Your task to perform on an android device: Is it going to rain this weekend? Image 0: 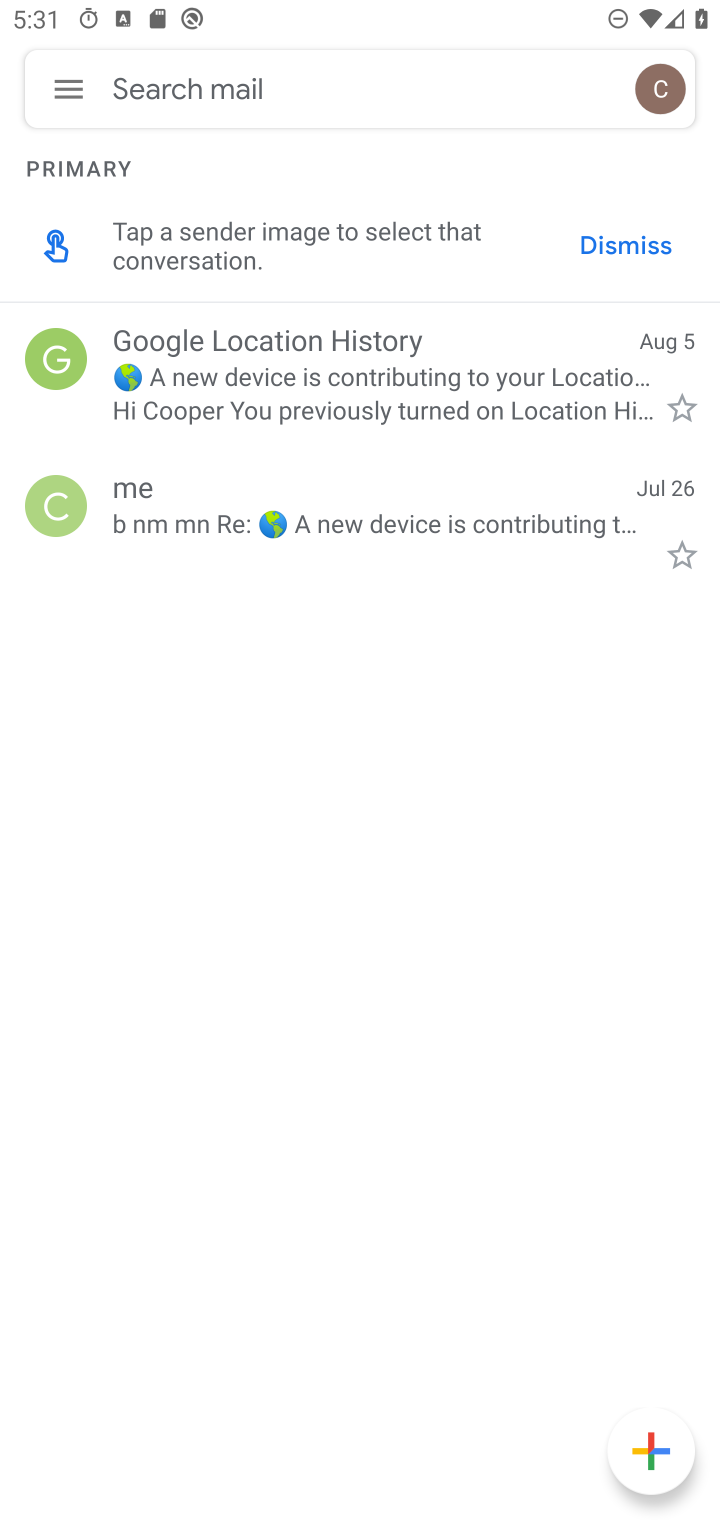
Step 0: press home button
Your task to perform on an android device: Is it going to rain this weekend? Image 1: 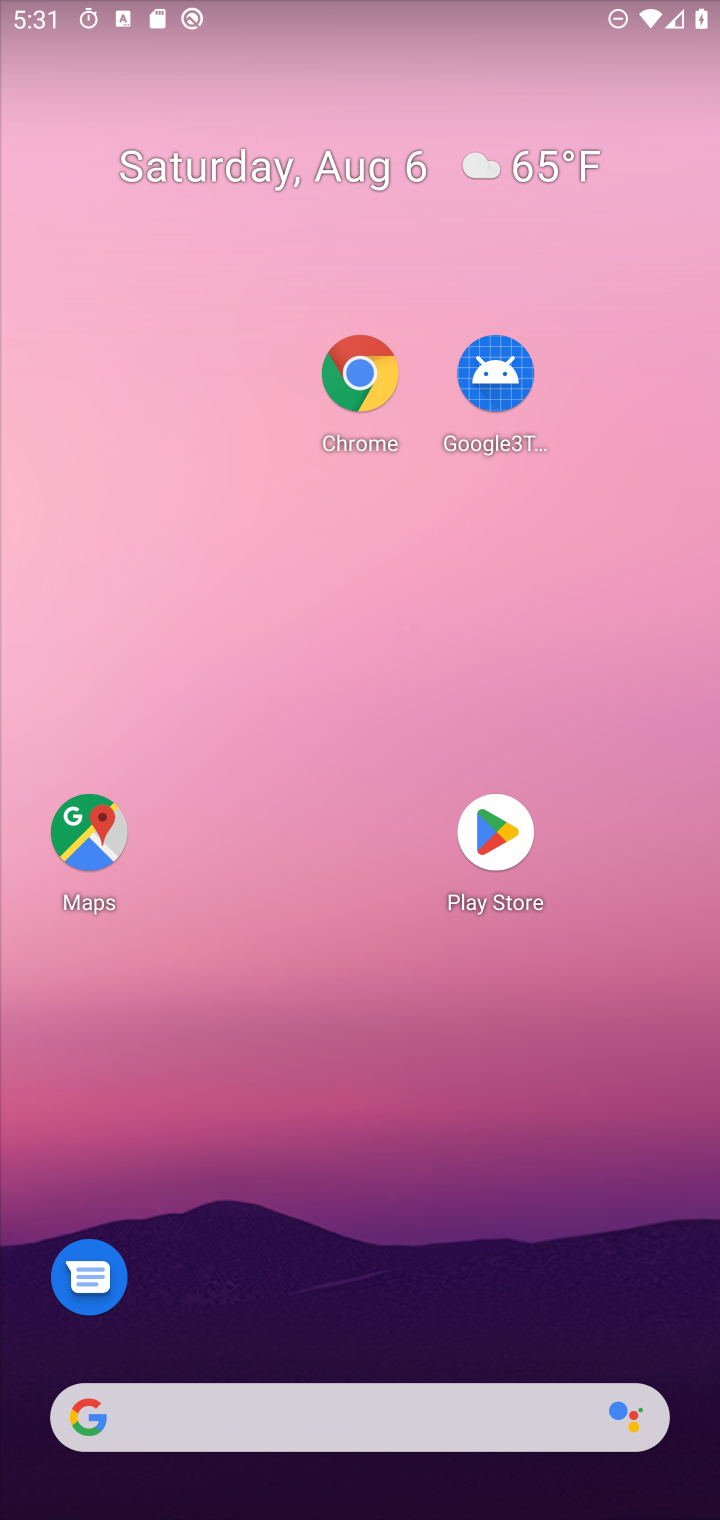
Step 1: drag from (499, 1429) to (577, 265)
Your task to perform on an android device: Is it going to rain this weekend? Image 2: 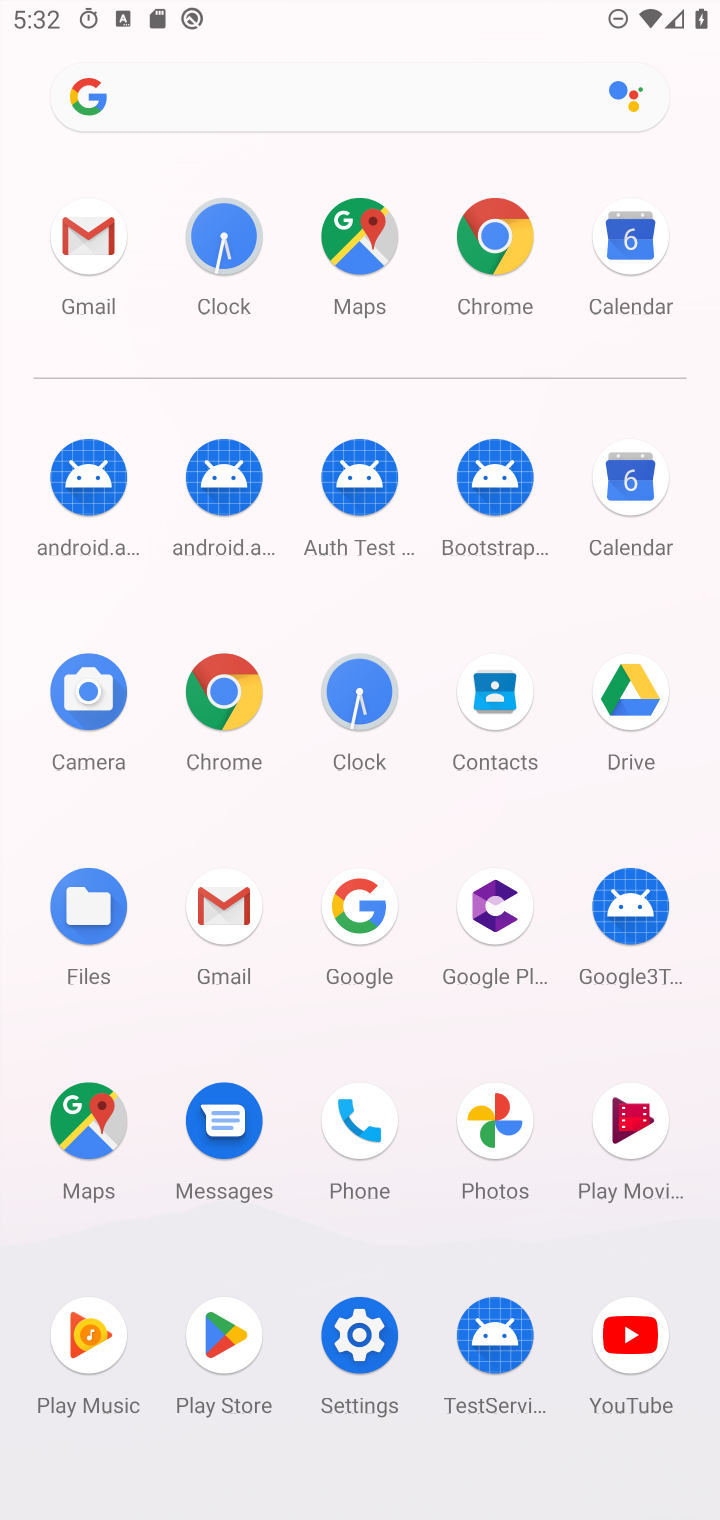
Step 2: click (357, 918)
Your task to perform on an android device: Is it going to rain this weekend? Image 3: 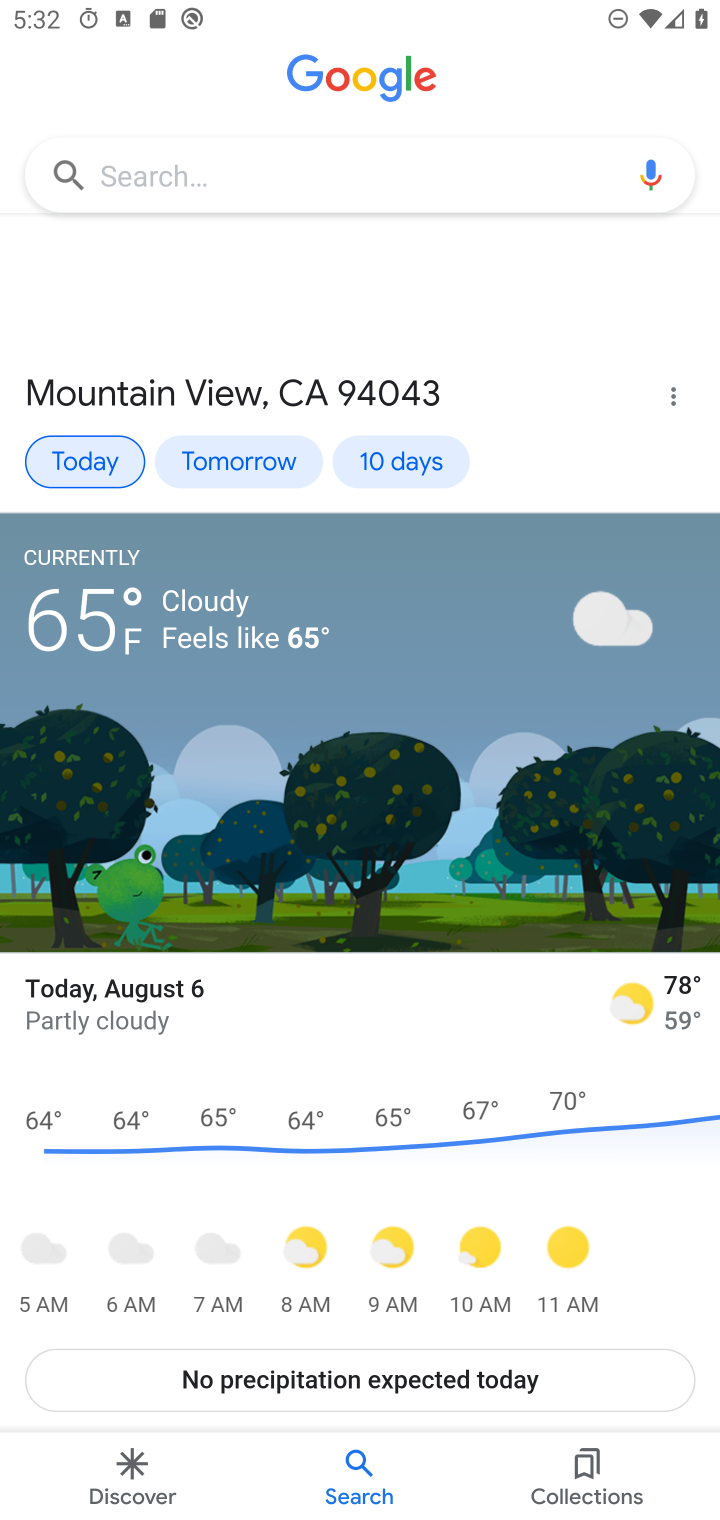
Step 3: click (399, 152)
Your task to perform on an android device: Is it going to rain this weekend? Image 4: 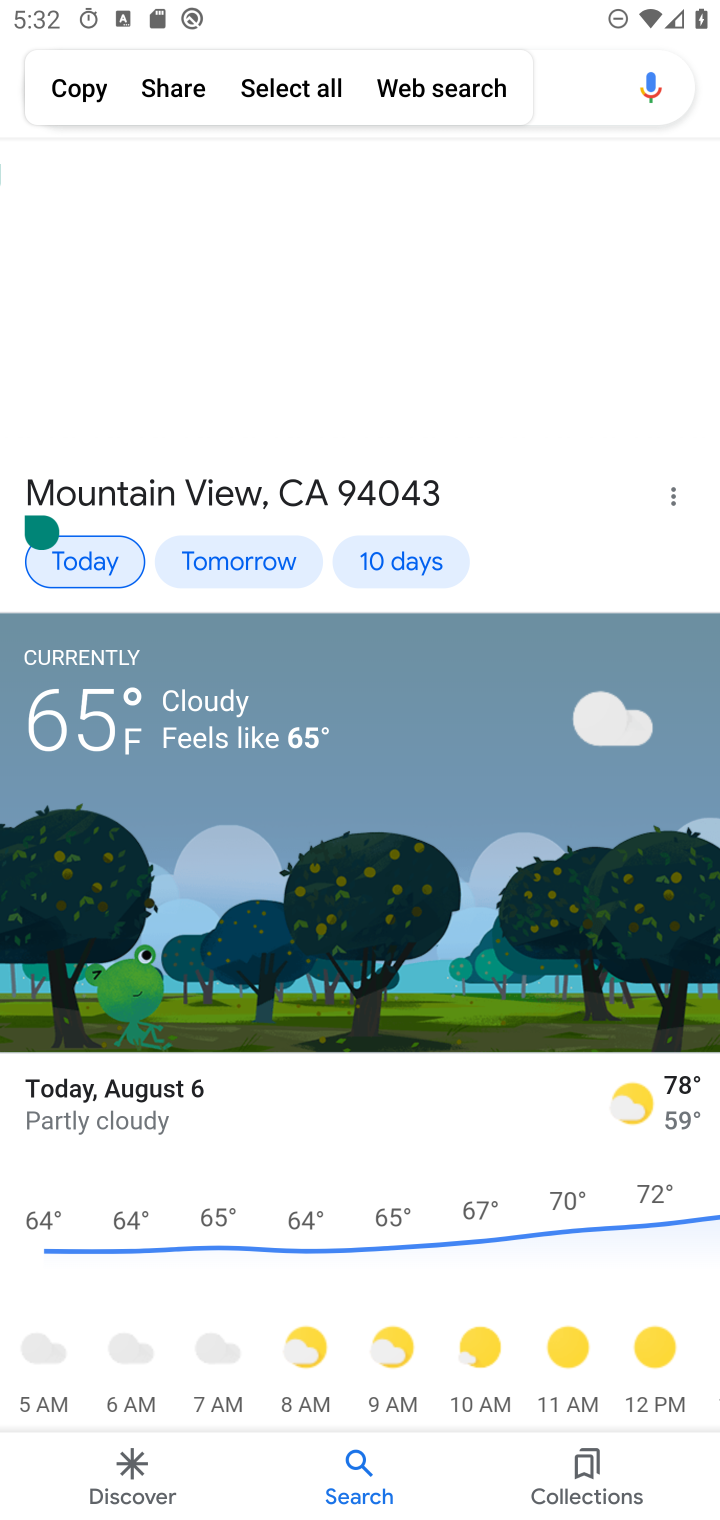
Step 4: click (371, 557)
Your task to perform on an android device: Is it going to rain this weekend? Image 5: 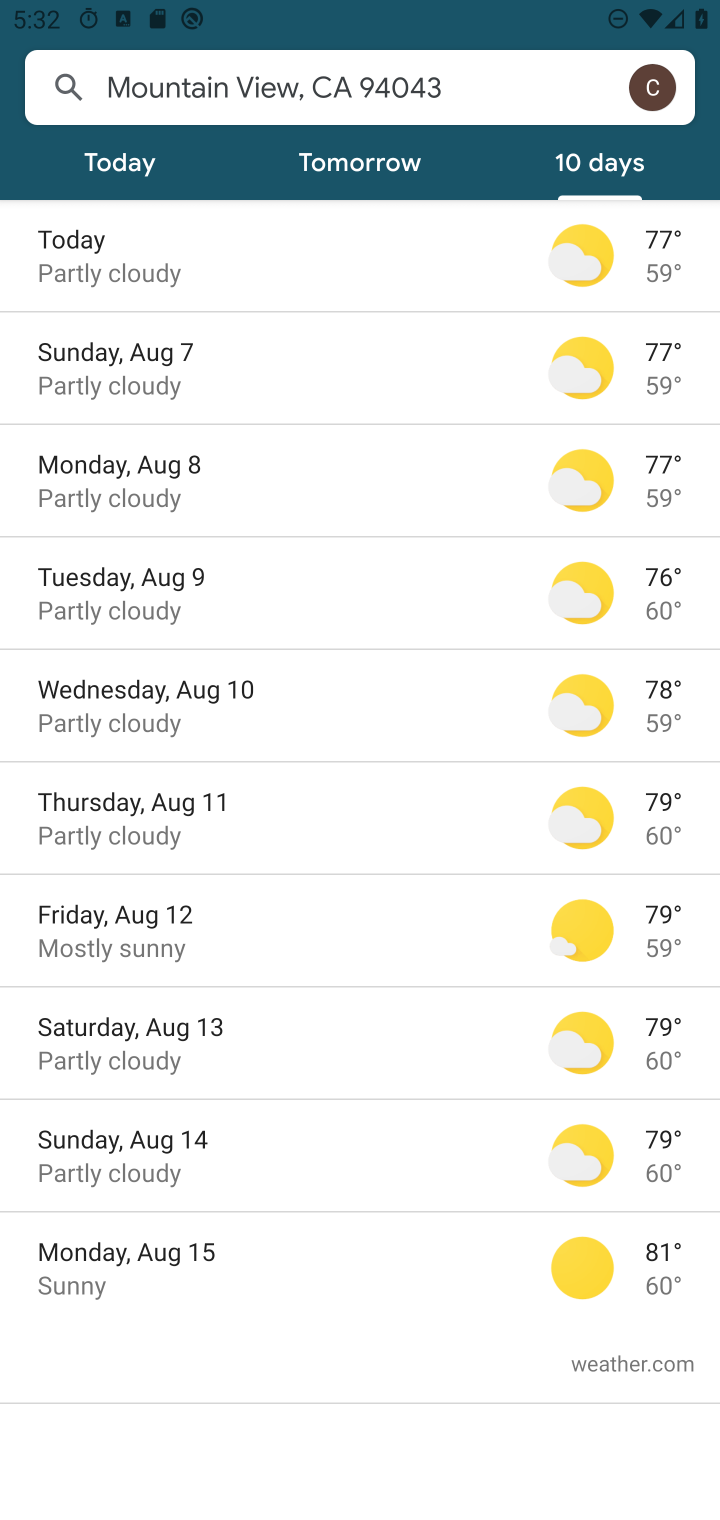
Step 5: task complete